Your task to perform on an android device: Open calendar and show me the third week of next month Image 0: 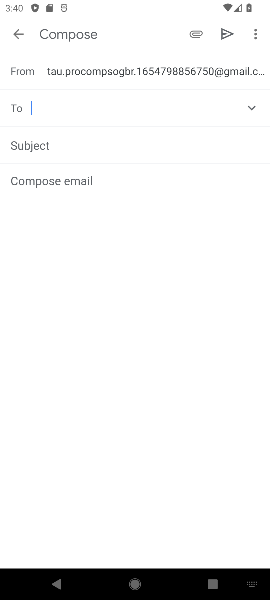
Step 0: press home button
Your task to perform on an android device: Open calendar and show me the third week of next month Image 1: 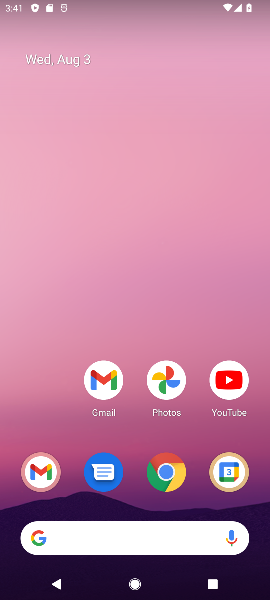
Step 1: drag from (193, 491) to (55, 22)
Your task to perform on an android device: Open calendar and show me the third week of next month Image 2: 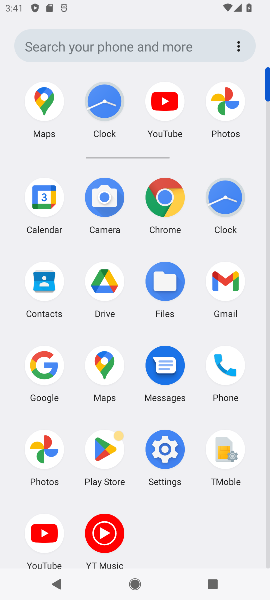
Step 2: click (44, 202)
Your task to perform on an android device: Open calendar and show me the third week of next month Image 3: 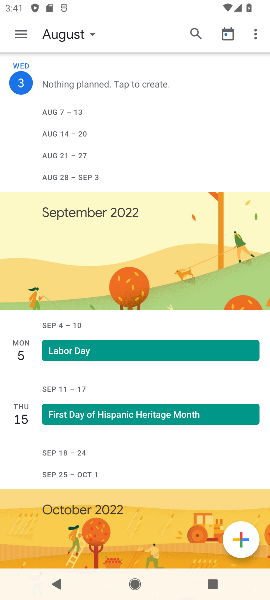
Step 3: click (61, 31)
Your task to perform on an android device: Open calendar and show me the third week of next month Image 4: 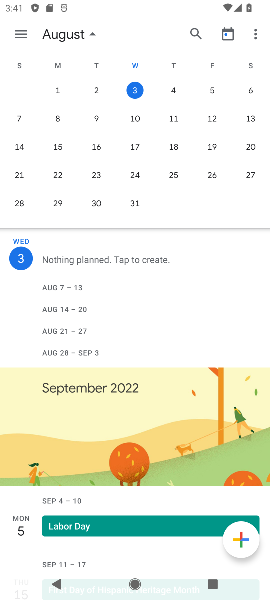
Step 4: drag from (253, 142) to (19, 99)
Your task to perform on an android device: Open calendar and show me the third week of next month Image 5: 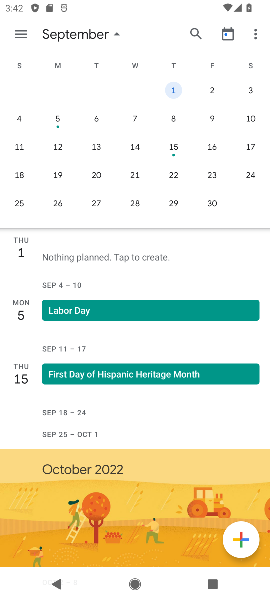
Step 5: click (13, 176)
Your task to perform on an android device: Open calendar and show me the third week of next month Image 6: 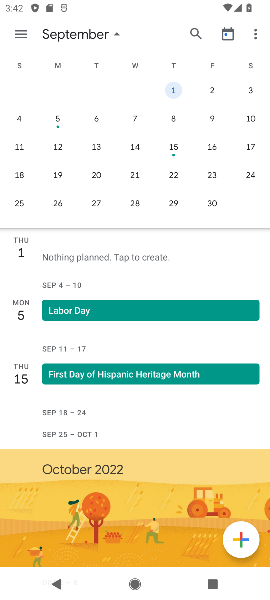
Step 6: click (21, 172)
Your task to perform on an android device: Open calendar and show me the third week of next month Image 7: 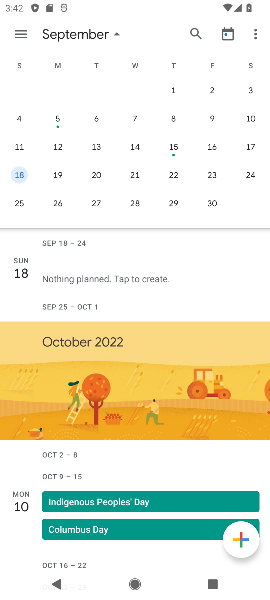
Step 7: task complete